Your task to perform on an android device: choose inbox layout in the gmail app Image 0: 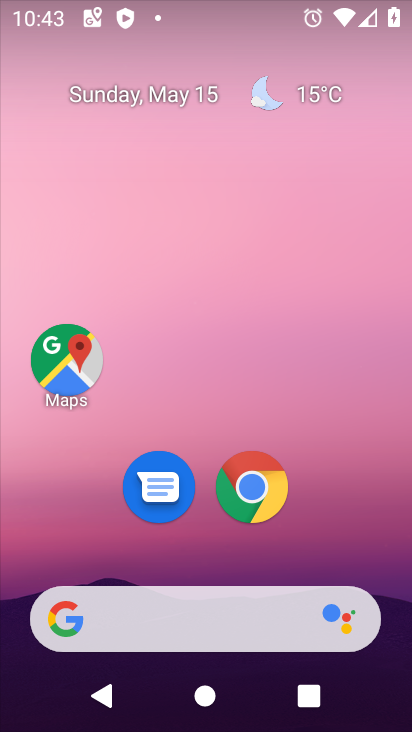
Step 0: drag from (400, 612) to (355, 81)
Your task to perform on an android device: choose inbox layout in the gmail app Image 1: 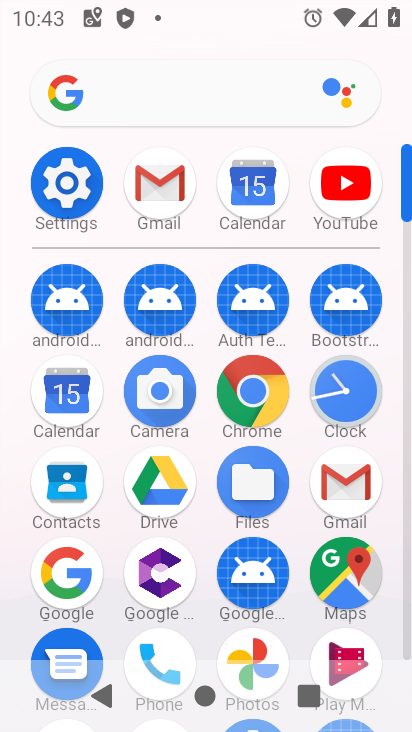
Step 1: click (406, 646)
Your task to perform on an android device: choose inbox layout in the gmail app Image 2: 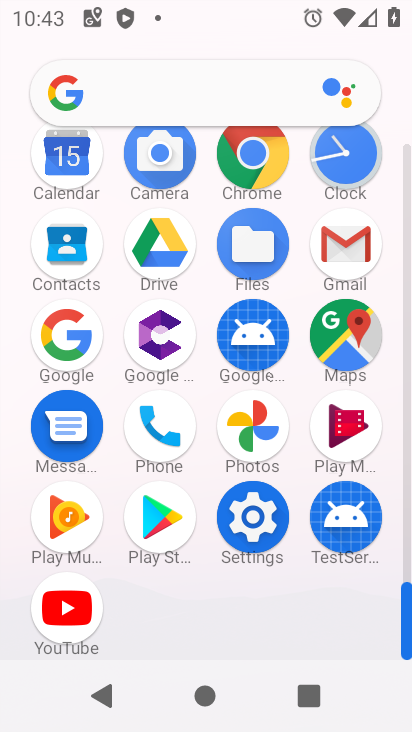
Step 2: click (344, 240)
Your task to perform on an android device: choose inbox layout in the gmail app Image 3: 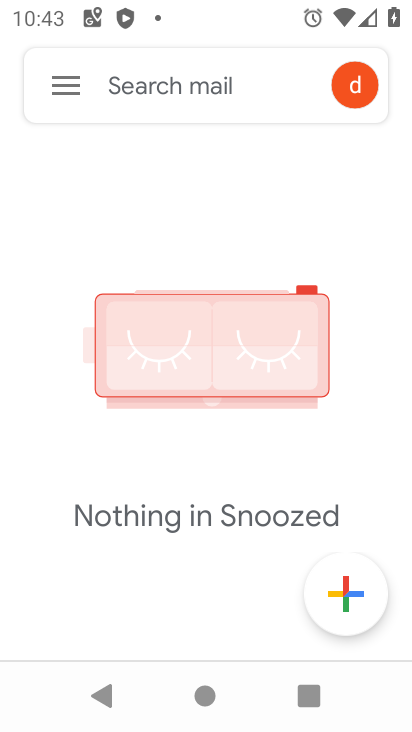
Step 3: click (66, 89)
Your task to perform on an android device: choose inbox layout in the gmail app Image 4: 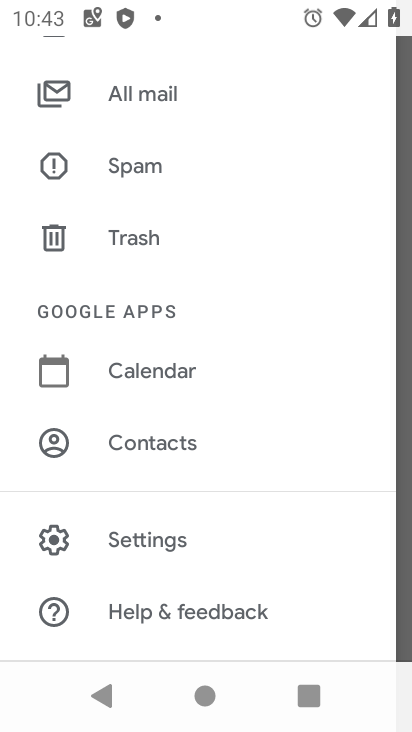
Step 4: click (135, 535)
Your task to perform on an android device: choose inbox layout in the gmail app Image 5: 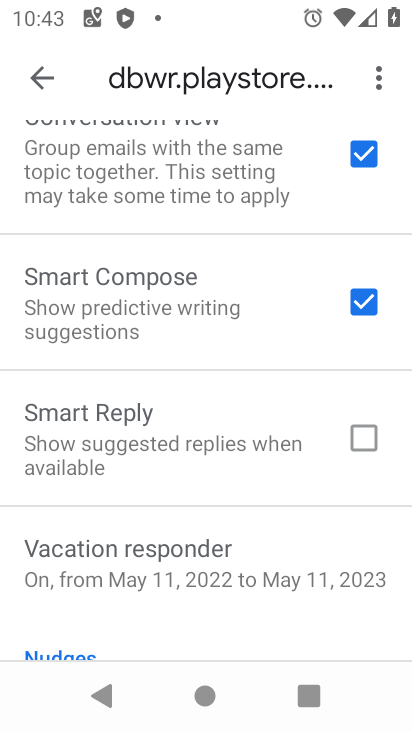
Step 5: drag from (213, 212) to (216, 520)
Your task to perform on an android device: choose inbox layout in the gmail app Image 6: 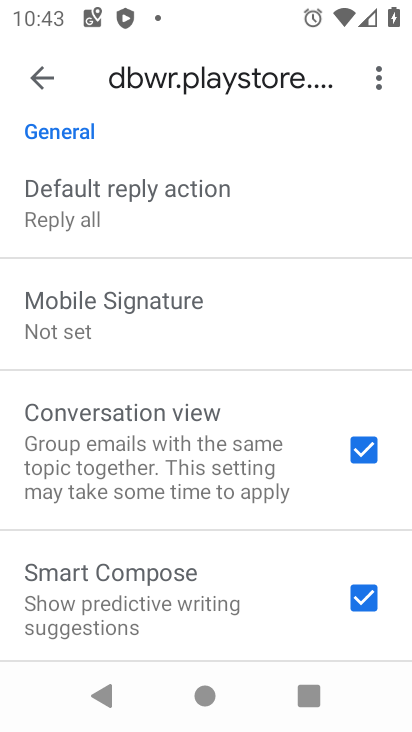
Step 6: drag from (265, 190) to (235, 471)
Your task to perform on an android device: choose inbox layout in the gmail app Image 7: 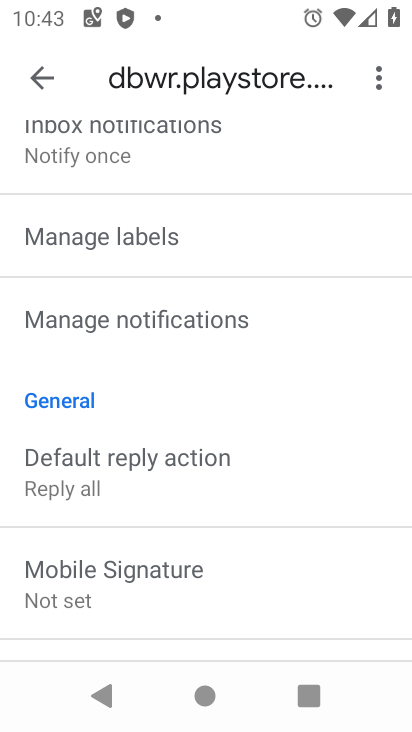
Step 7: drag from (270, 228) to (260, 563)
Your task to perform on an android device: choose inbox layout in the gmail app Image 8: 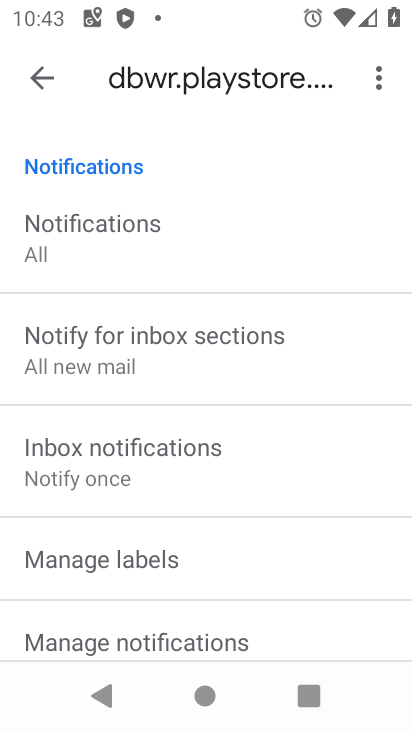
Step 8: drag from (283, 178) to (306, 503)
Your task to perform on an android device: choose inbox layout in the gmail app Image 9: 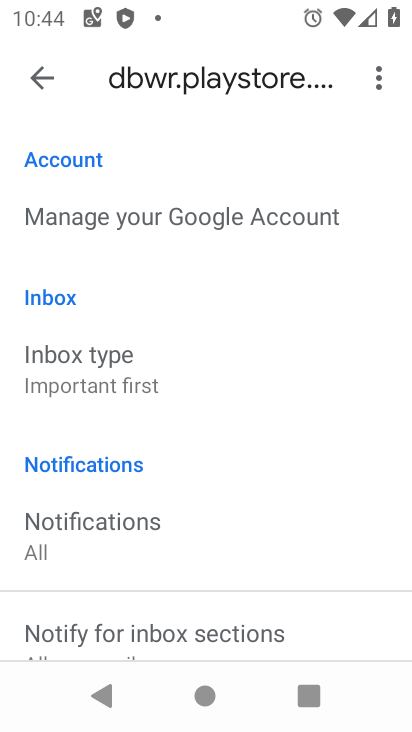
Step 9: click (59, 367)
Your task to perform on an android device: choose inbox layout in the gmail app Image 10: 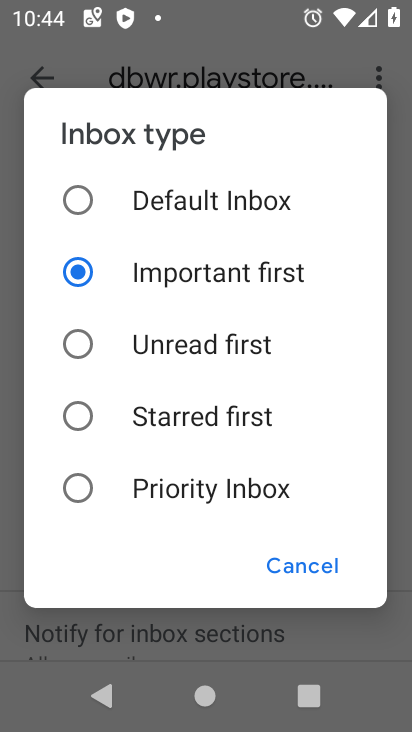
Step 10: click (73, 203)
Your task to perform on an android device: choose inbox layout in the gmail app Image 11: 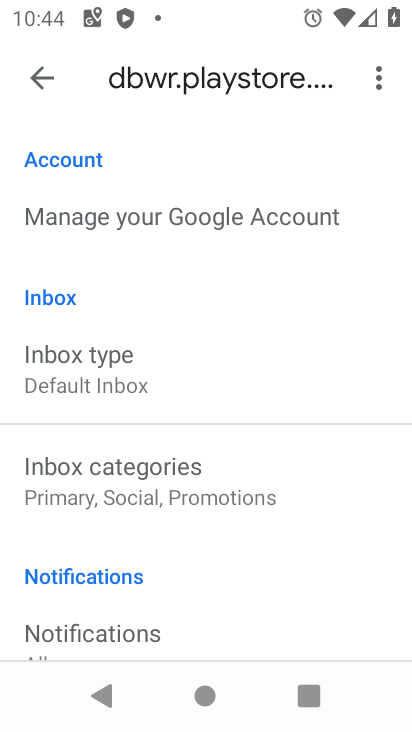
Step 11: task complete